Your task to perform on an android device: Open Google Chrome and open the bookmarks view Image 0: 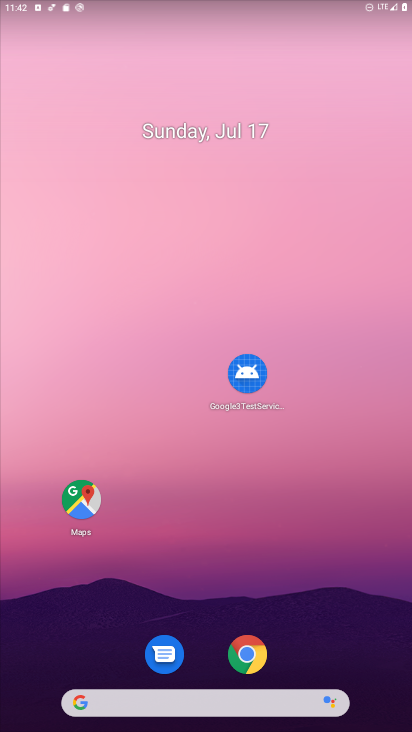
Step 0: click (252, 648)
Your task to perform on an android device: Open Google Chrome and open the bookmarks view Image 1: 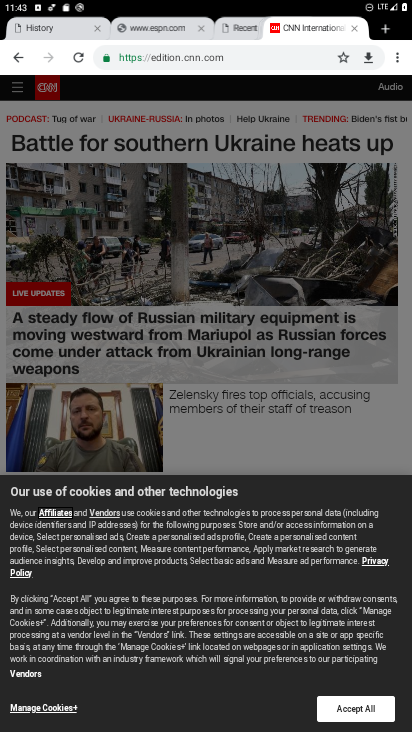
Step 1: click (399, 57)
Your task to perform on an android device: Open Google Chrome and open the bookmarks view Image 2: 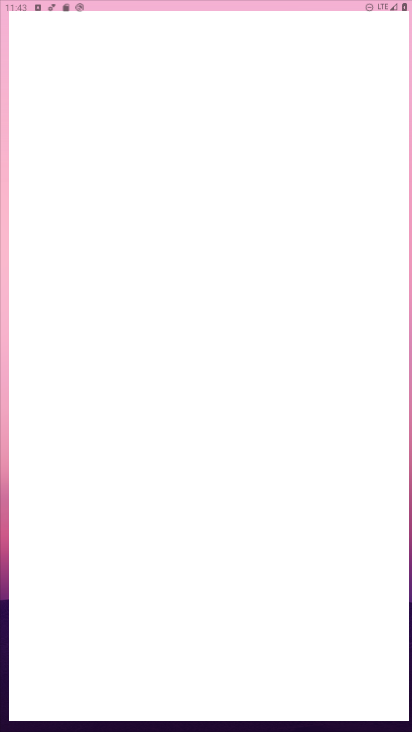
Step 2: click (399, 57)
Your task to perform on an android device: Open Google Chrome and open the bookmarks view Image 3: 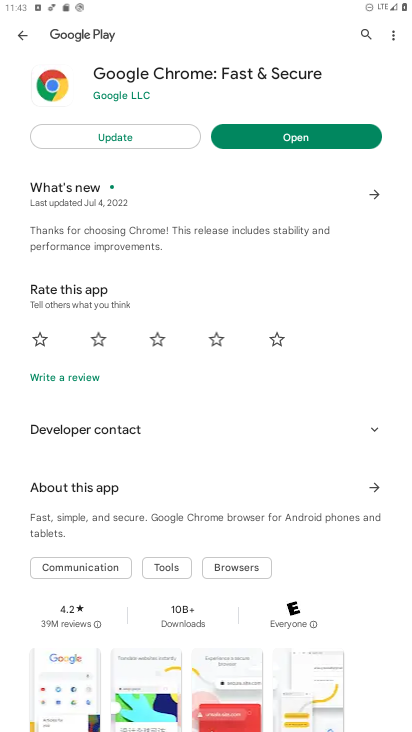
Step 3: click (292, 127)
Your task to perform on an android device: Open Google Chrome and open the bookmarks view Image 4: 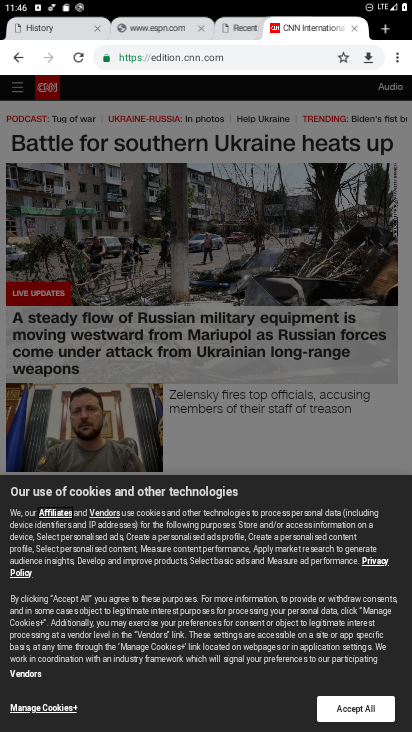
Step 4: click (396, 55)
Your task to perform on an android device: Open Google Chrome and open the bookmarks view Image 5: 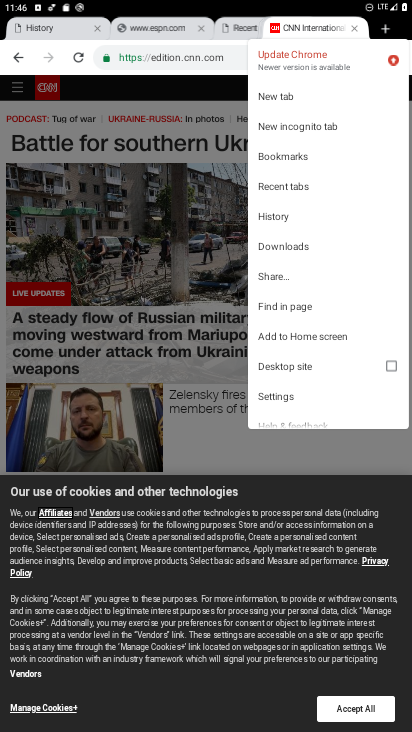
Step 5: click (304, 161)
Your task to perform on an android device: Open Google Chrome and open the bookmarks view Image 6: 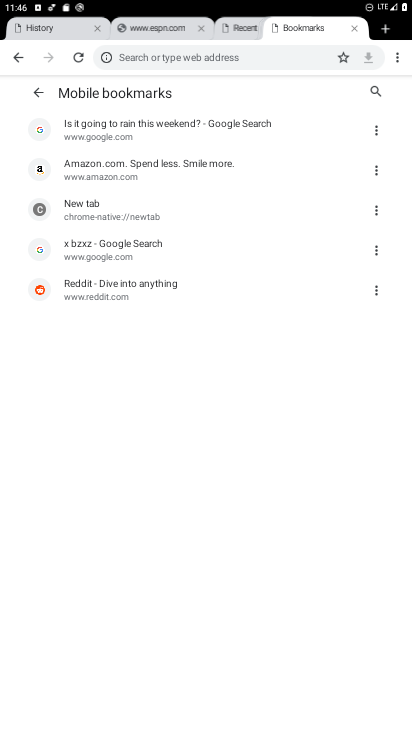
Step 6: task complete